Your task to perform on an android device: Open Maps and search for coffee Image 0: 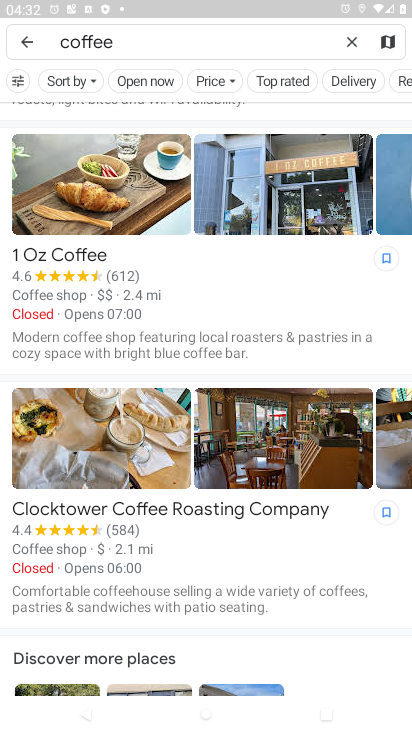
Step 0: drag from (223, 365) to (231, 97)
Your task to perform on an android device: Open Maps and search for coffee Image 1: 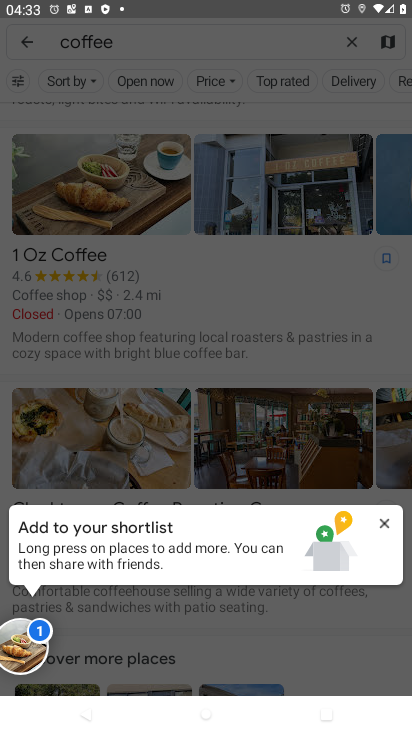
Step 1: task complete